Your task to perform on an android device: delete browsing data in the chrome app Image 0: 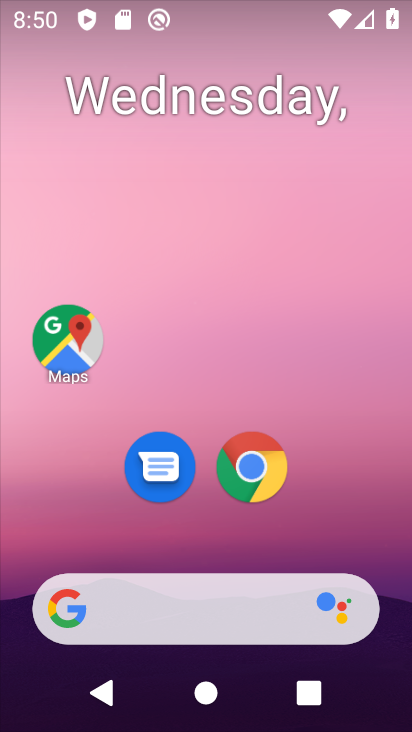
Step 0: drag from (324, 522) to (352, 29)
Your task to perform on an android device: delete browsing data in the chrome app Image 1: 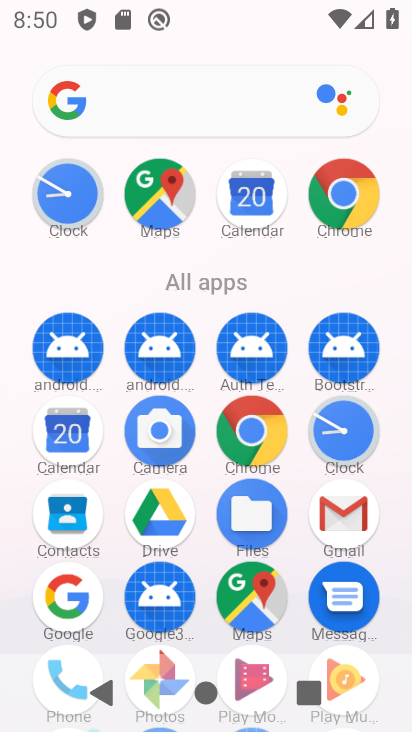
Step 1: click (245, 436)
Your task to perform on an android device: delete browsing data in the chrome app Image 2: 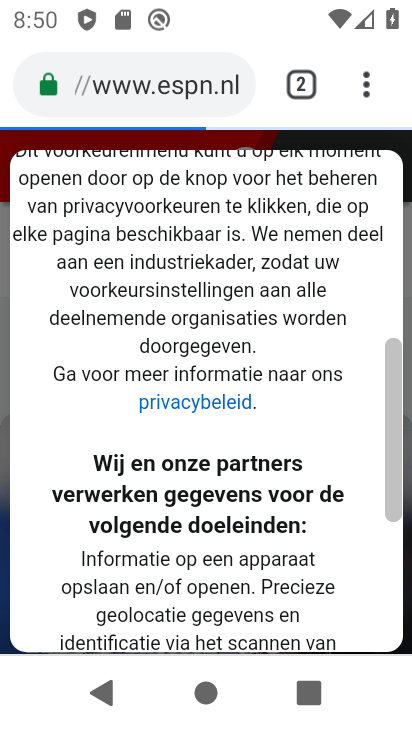
Step 2: drag from (373, 76) to (228, 142)
Your task to perform on an android device: delete browsing data in the chrome app Image 3: 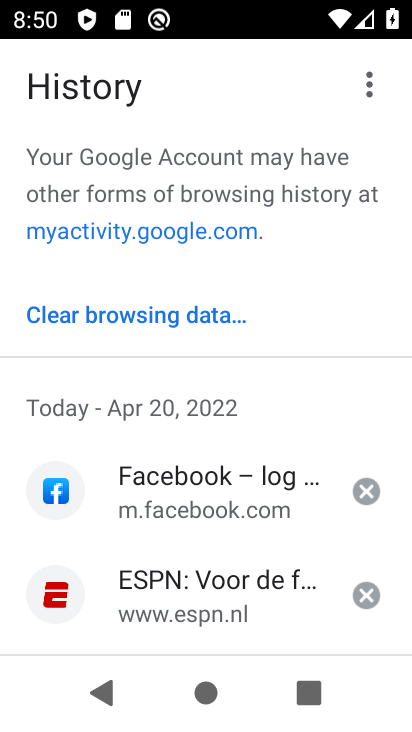
Step 3: click (201, 317)
Your task to perform on an android device: delete browsing data in the chrome app Image 4: 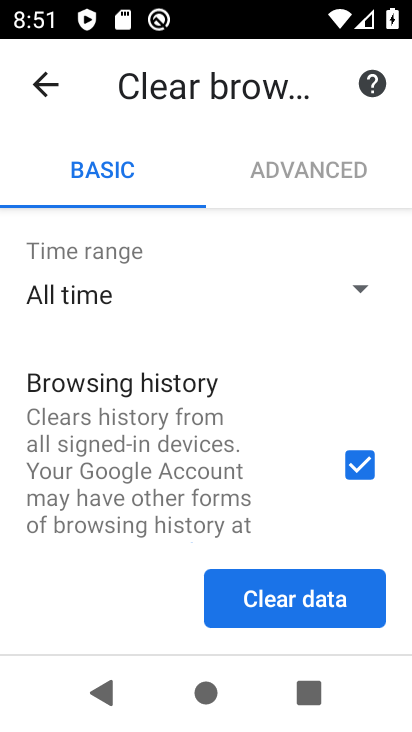
Step 4: click (315, 597)
Your task to perform on an android device: delete browsing data in the chrome app Image 5: 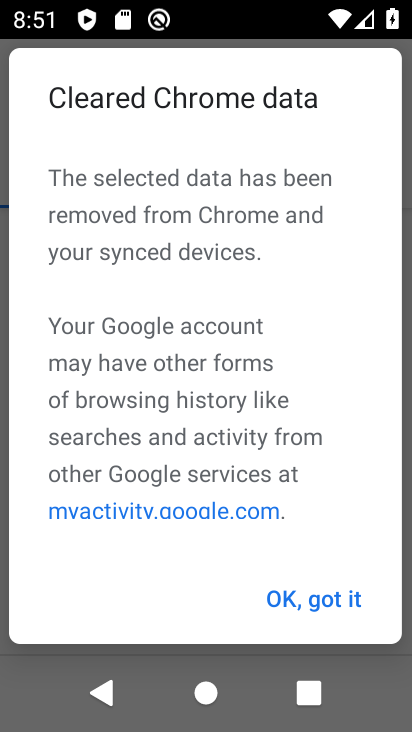
Step 5: task complete